Your task to perform on an android device: change keyboard looks Image 0: 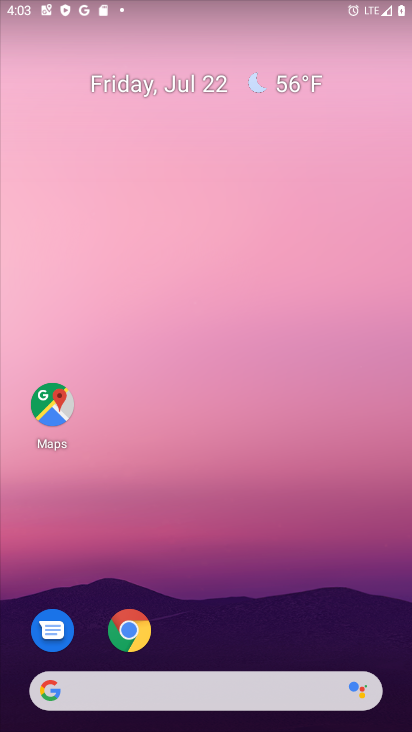
Step 0: drag from (197, 696) to (159, 160)
Your task to perform on an android device: change keyboard looks Image 1: 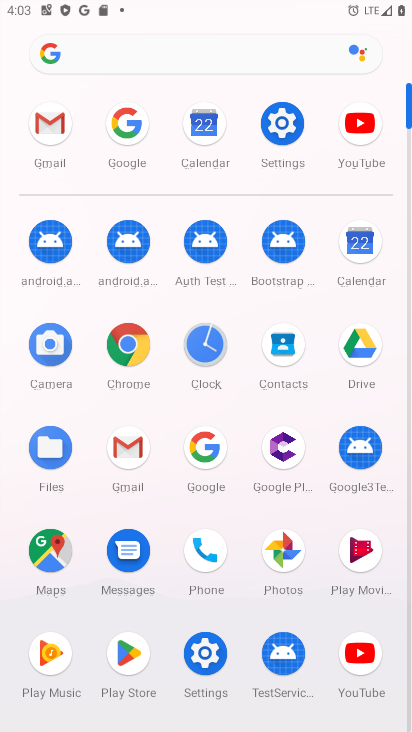
Step 1: click (272, 147)
Your task to perform on an android device: change keyboard looks Image 2: 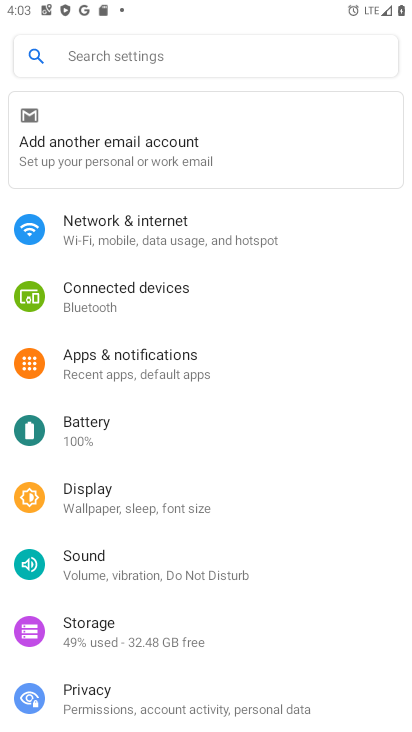
Step 2: drag from (151, 610) to (131, 111)
Your task to perform on an android device: change keyboard looks Image 3: 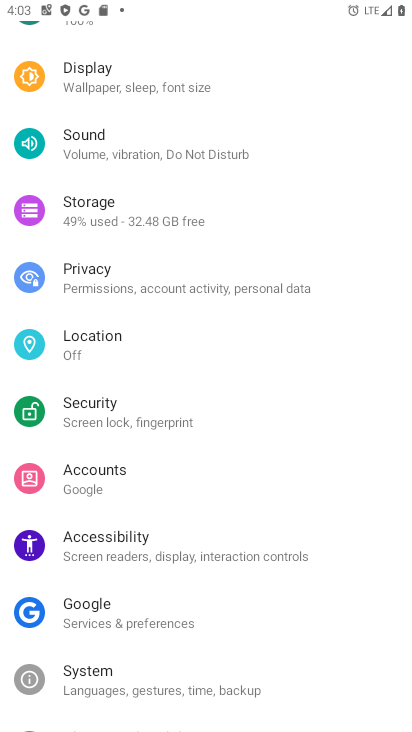
Step 3: drag from (164, 609) to (136, 125)
Your task to perform on an android device: change keyboard looks Image 4: 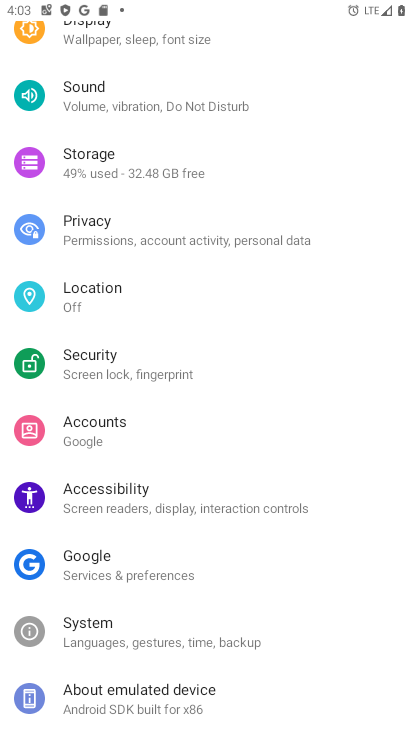
Step 4: click (122, 632)
Your task to perform on an android device: change keyboard looks Image 5: 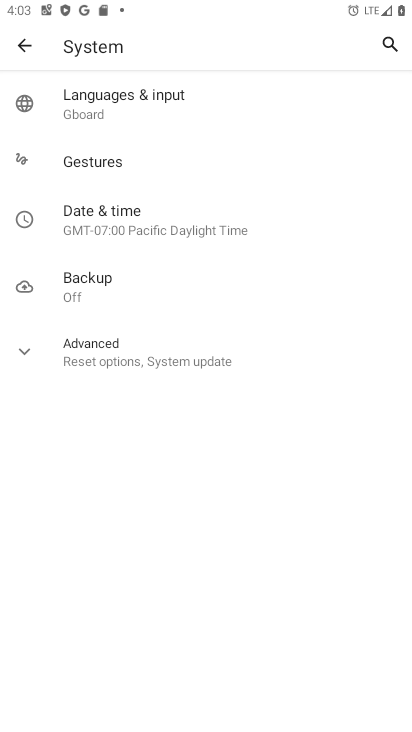
Step 5: click (121, 91)
Your task to perform on an android device: change keyboard looks Image 6: 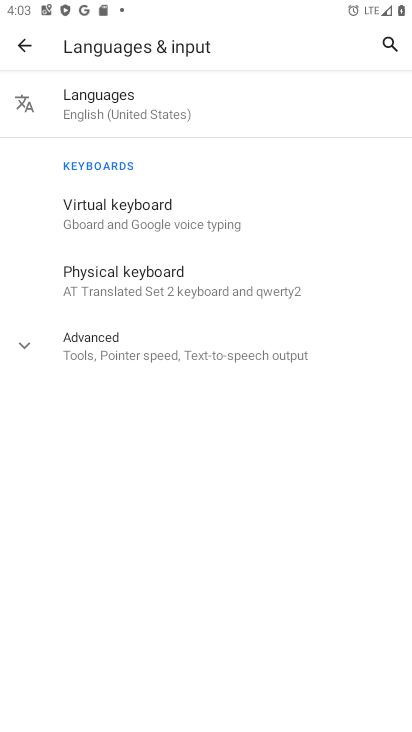
Step 6: click (114, 203)
Your task to perform on an android device: change keyboard looks Image 7: 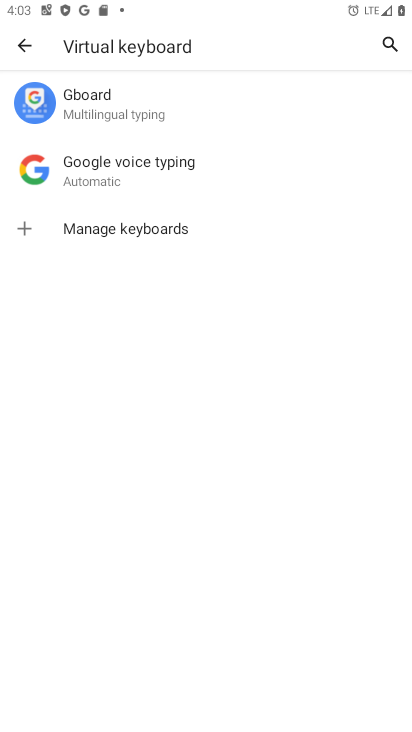
Step 7: click (93, 115)
Your task to perform on an android device: change keyboard looks Image 8: 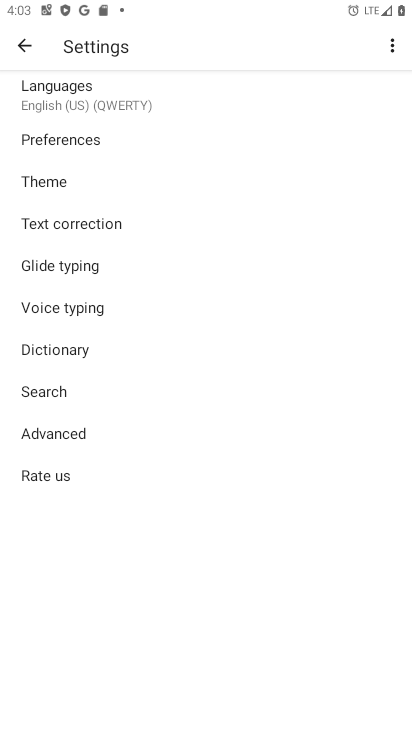
Step 8: click (63, 178)
Your task to perform on an android device: change keyboard looks Image 9: 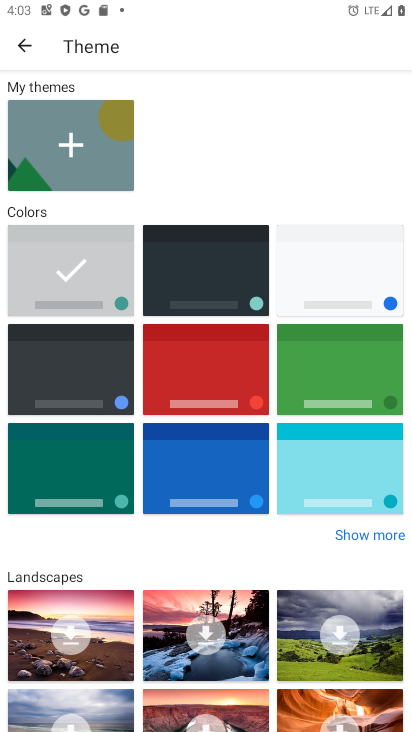
Step 9: click (231, 278)
Your task to perform on an android device: change keyboard looks Image 10: 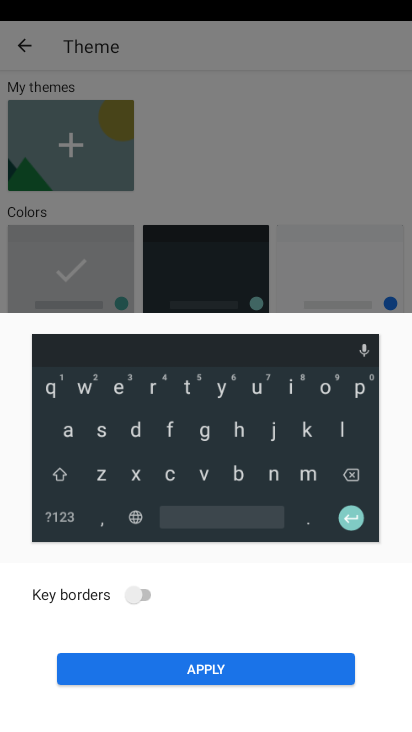
Step 10: click (151, 599)
Your task to perform on an android device: change keyboard looks Image 11: 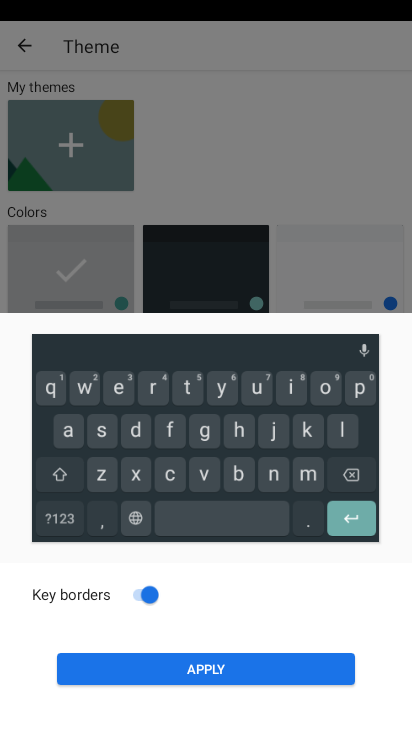
Step 11: click (245, 673)
Your task to perform on an android device: change keyboard looks Image 12: 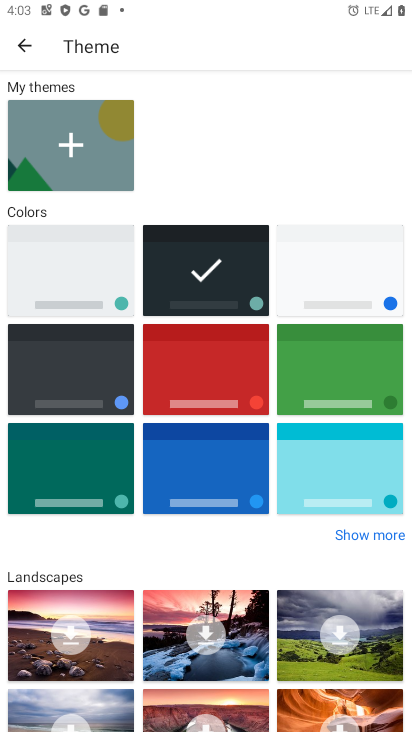
Step 12: task complete